Your task to perform on an android device: open app "LiveIn - Share Your Moment" (install if not already installed) and go to login screen Image 0: 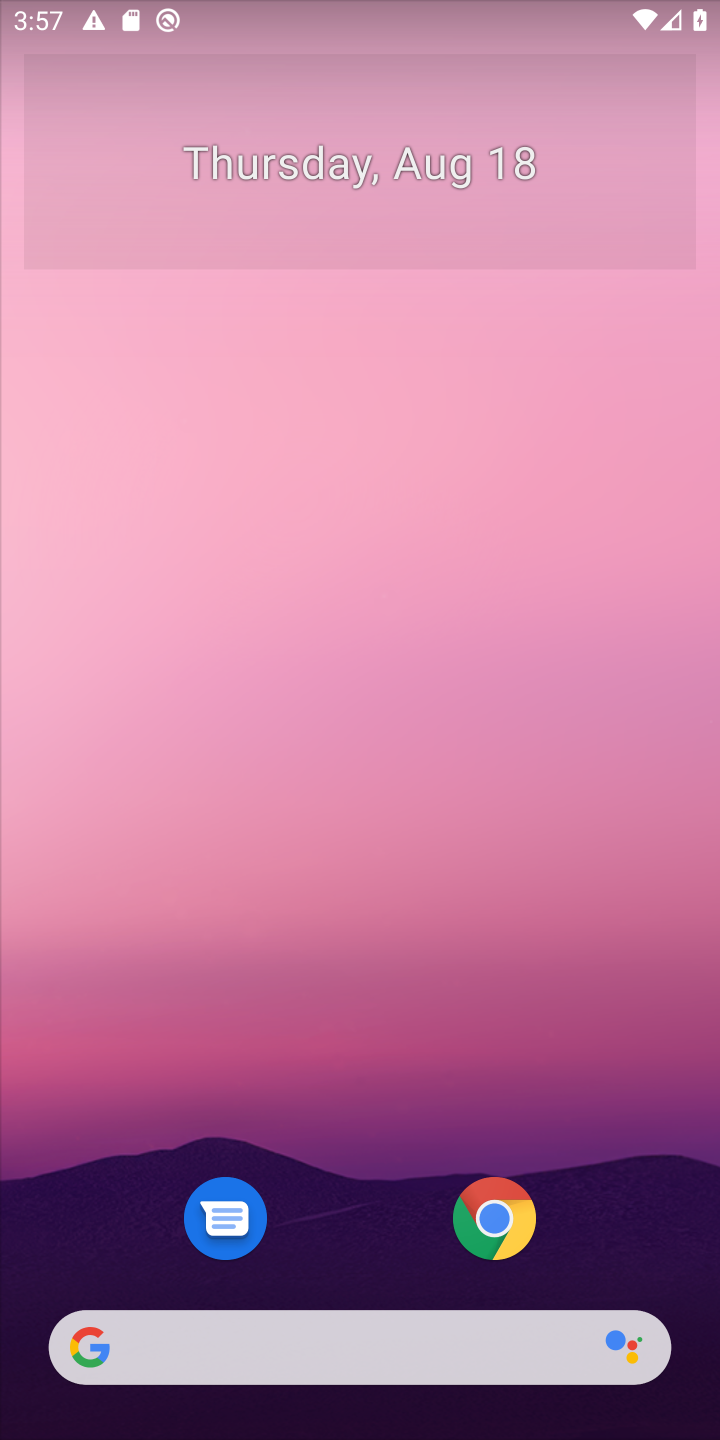
Step 0: drag from (336, 978) to (336, 119)
Your task to perform on an android device: open app "LiveIn - Share Your Moment" (install if not already installed) and go to login screen Image 1: 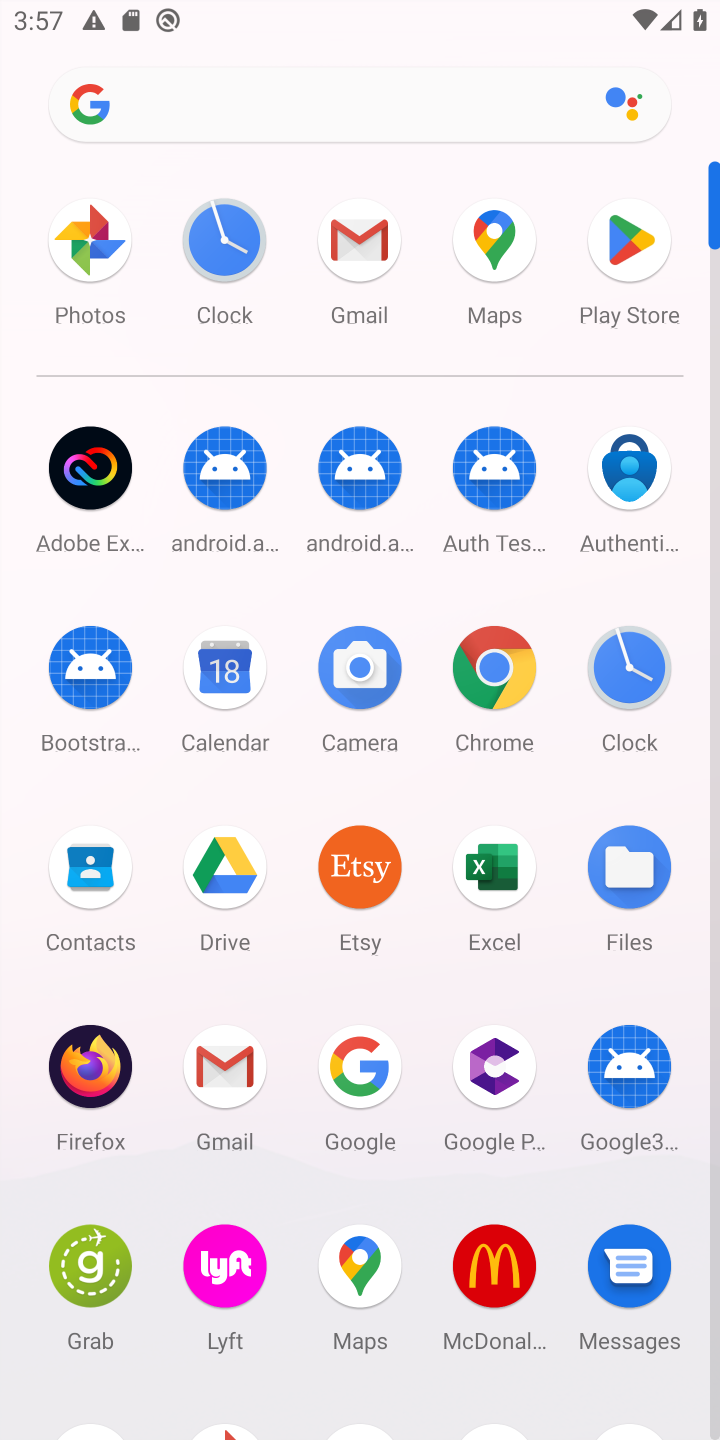
Step 1: click (629, 251)
Your task to perform on an android device: open app "LiveIn - Share Your Moment" (install if not already installed) and go to login screen Image 2: 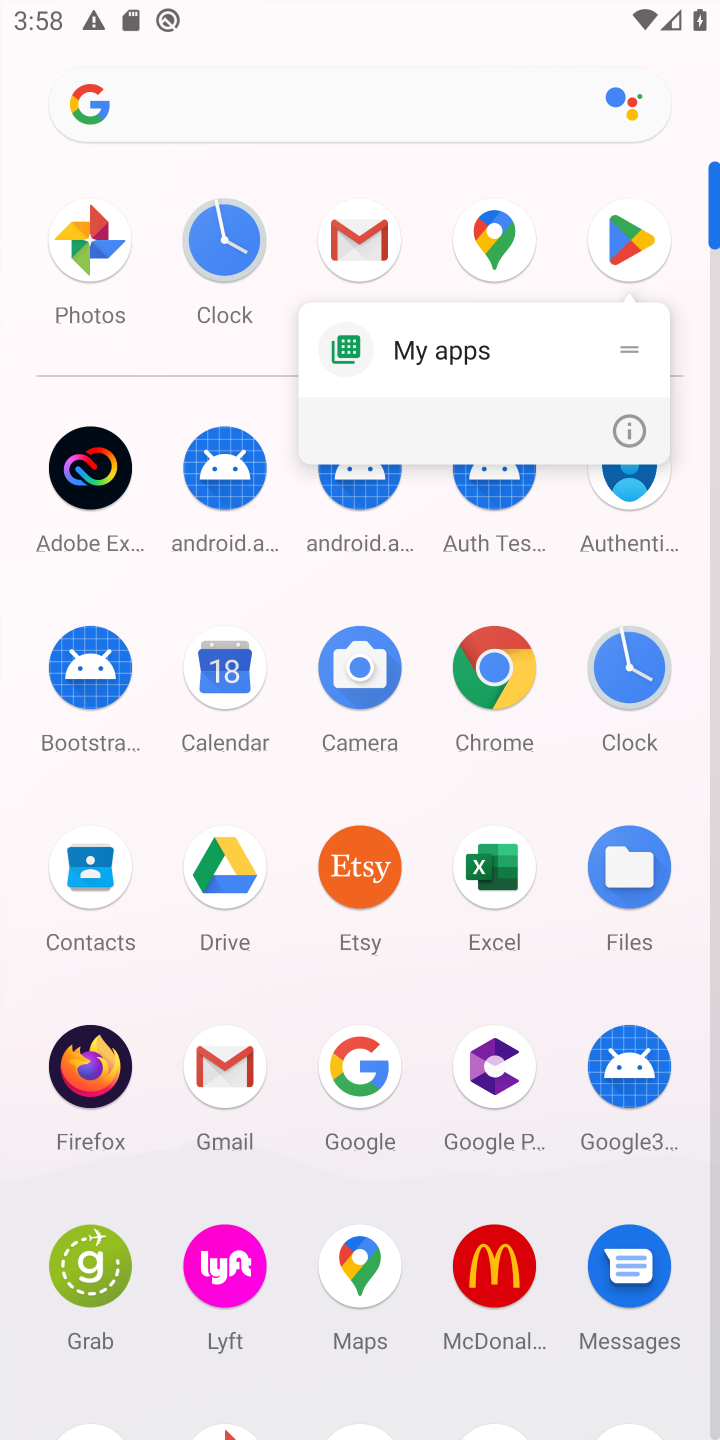
Step 2: click (629, 251)
Your task to perform on an android device: open app "LiveIn - Share Your Moment" (install if not already installed) and go to login screen Image 3: 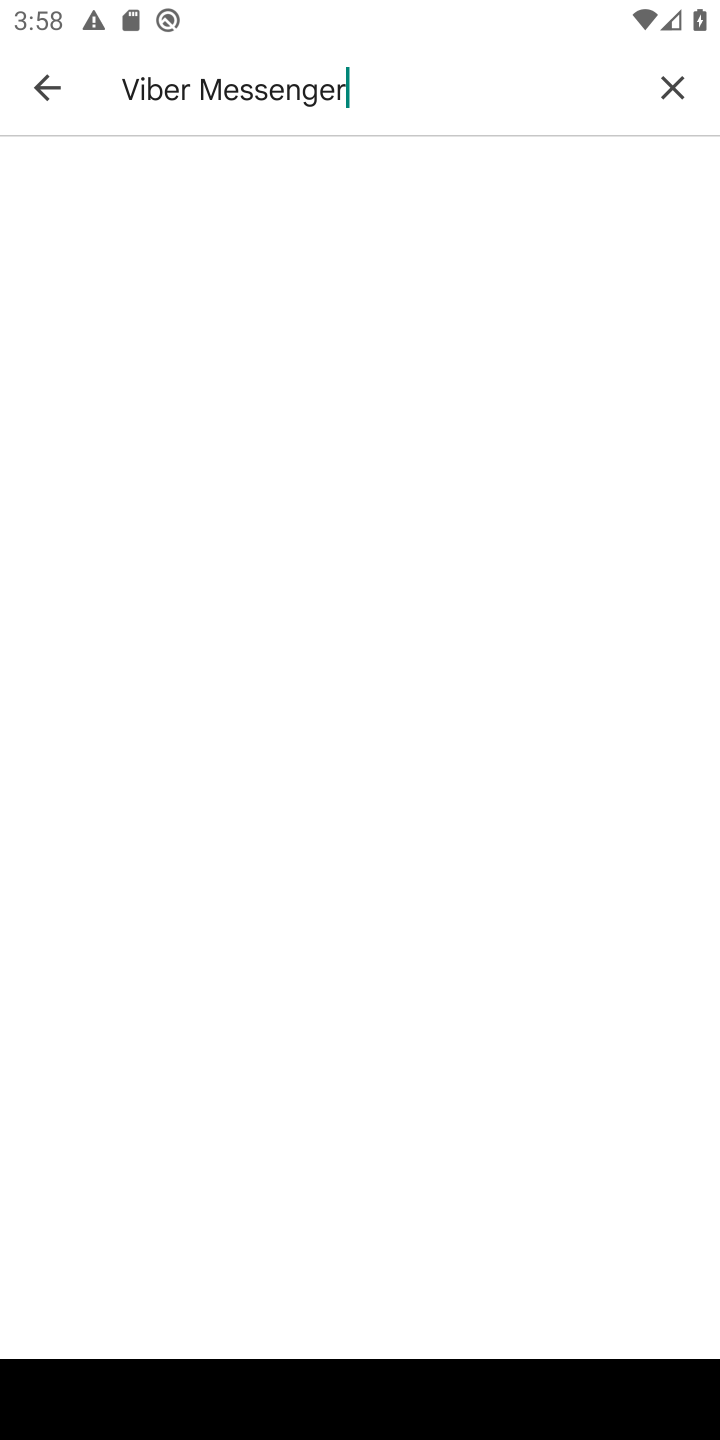
Step 3: click (678, 73)
Your task to perform on an android device: open app "LiveIn - Share Your Moment" (install if not already installed) and go to login screen Image 4: 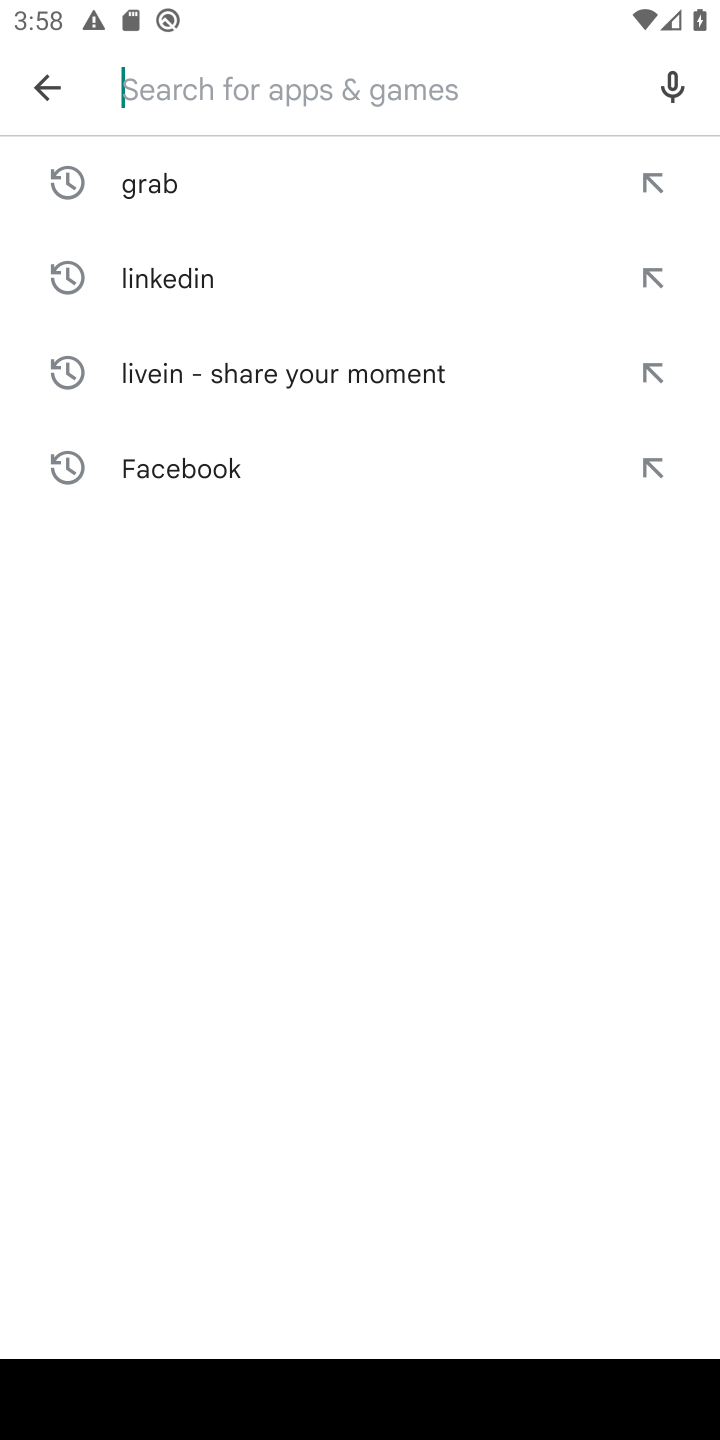
Step 4: type "LiveIn - Share Your Moment"
Your task to perform on an android device: open app "LiveIn - Share Your Moment" (install if not already installed) and go to login screen Image 5: 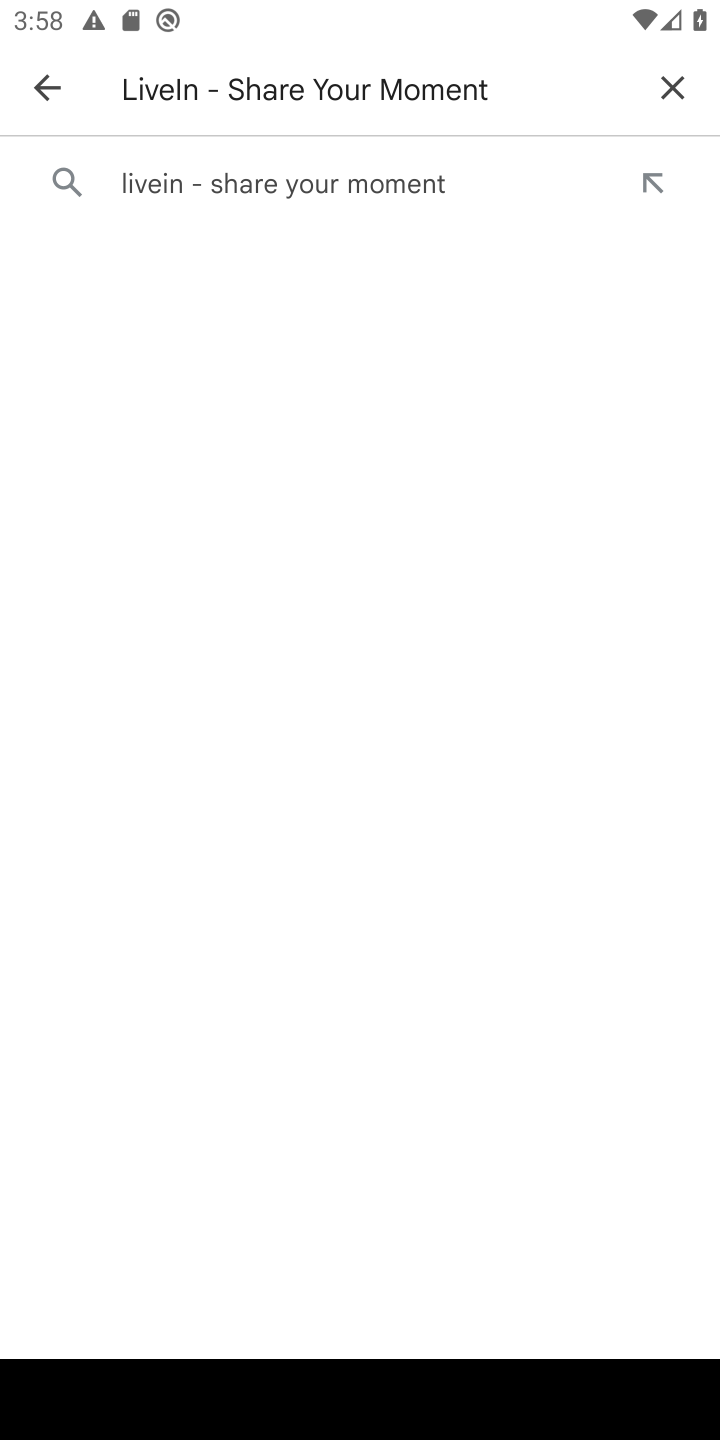
Step 5: click (137, 183)
Your task to perform on an android device: open app "LiveIn - Share Your Moment" (install if not already installed) and go to login screen Image 6: 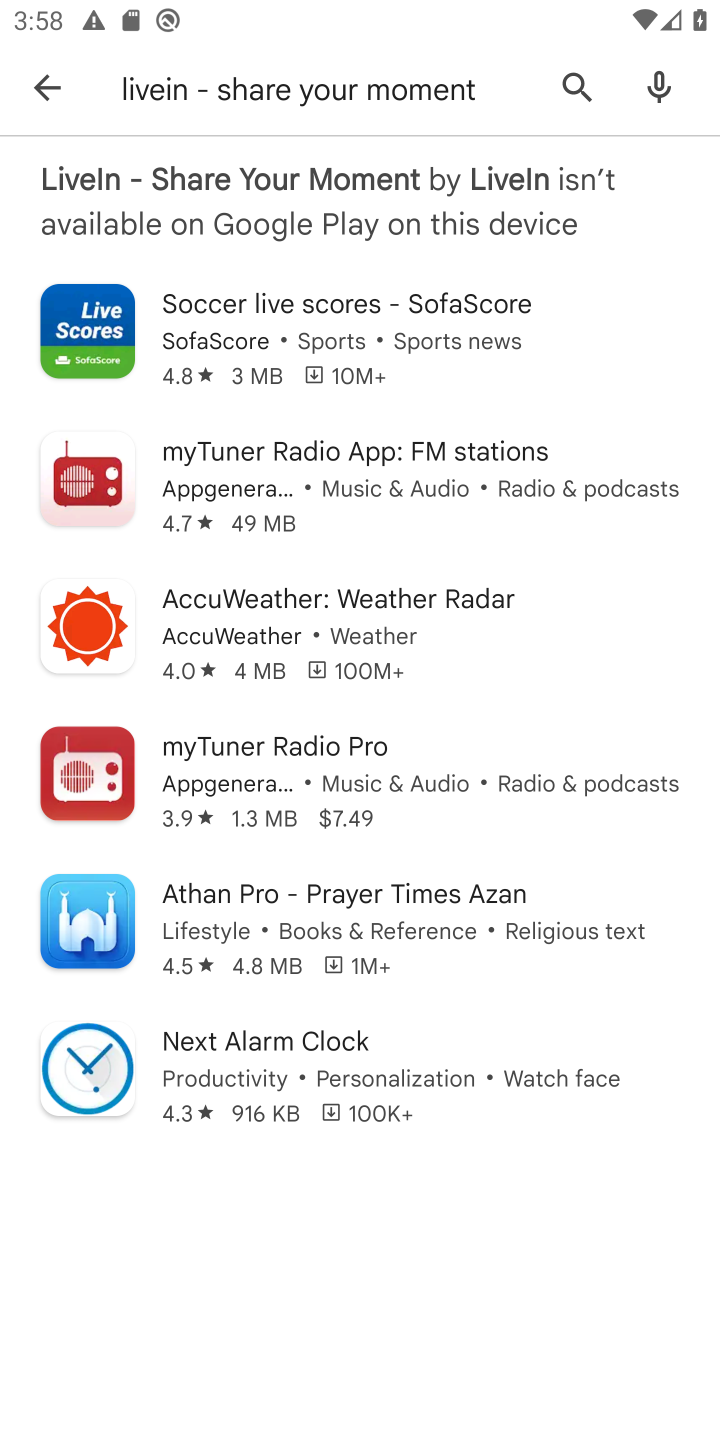
Step 6: task complete